Your task to perform on an android device: change your default location settings in chrome Image 0: 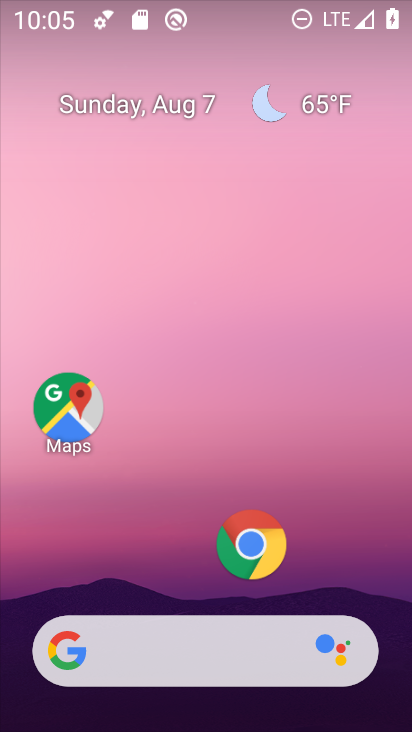
Step 0: drag from (192, 578) to (189, 36)
Your task to perform on an android device: change your default location settings in chrome Image 1: 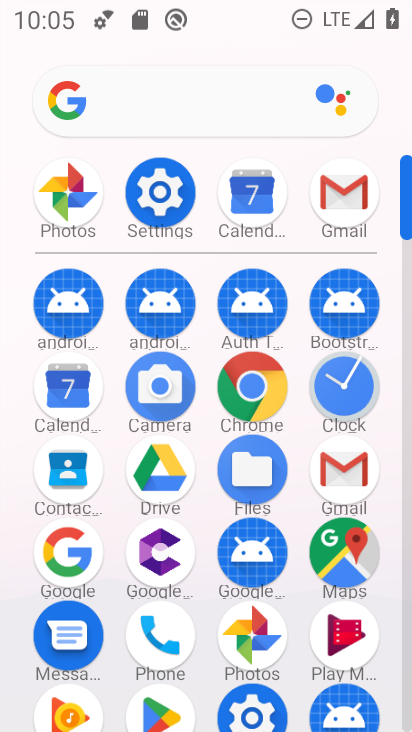
Step 1: click (252, 375)
Your task to perform on an android device: change your default location settings in chrome Image 2: 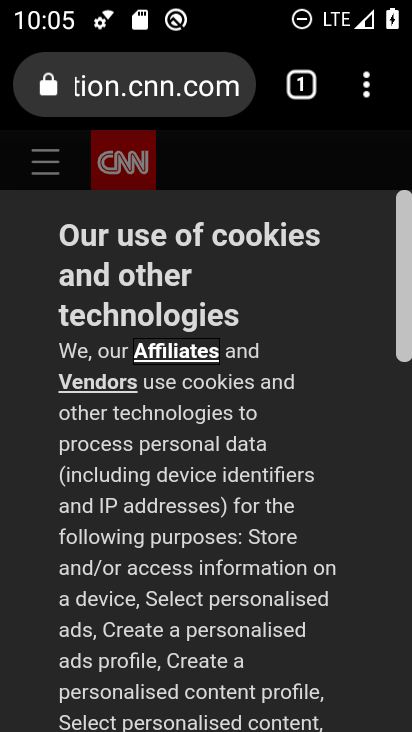
Step 2: drag from (367, 75) to (84, 601)
Your task to perform on an android device: change your default location settings in chrome Image 3: 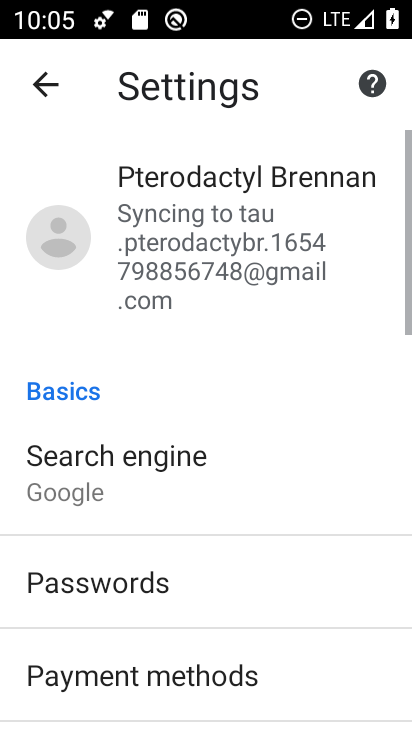
Step 3: drag from (183, 562) to (373, 7)
Your task to perform on an android device: change your default location settings in chrome Image 4: 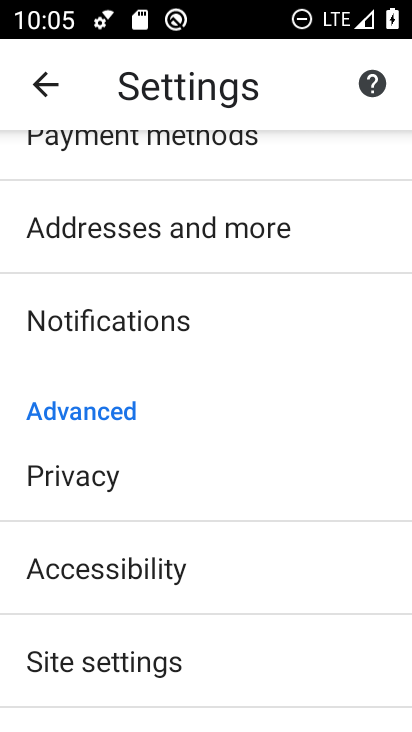
Step 4: drag from (189, 556) to (180, 47)
Your task to perform on an android device: change your default location settings in chrome Image 5: 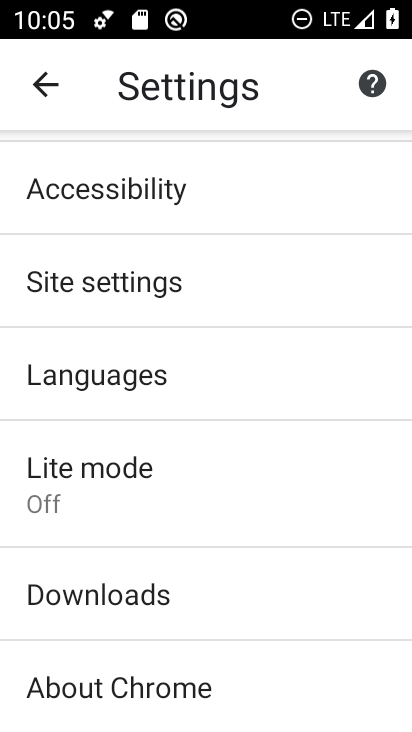
Step 5: click (95, 363)
Your task to perform on an android device: change your default location settings in chrome Image 6: 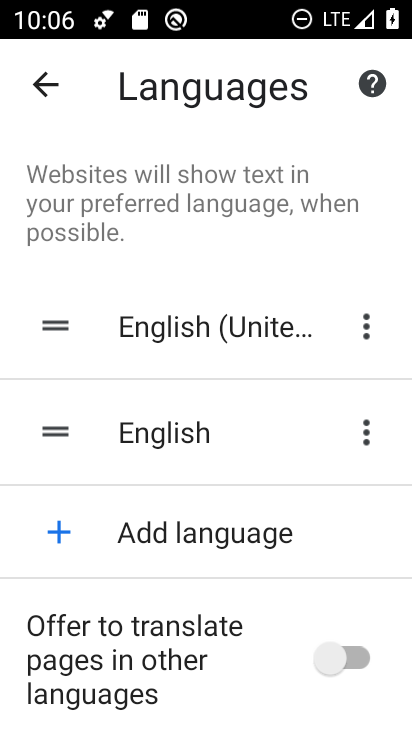
Step 6: click (34, 99)
Your task to perform on an android device: change your default location settings in chrome Image 7: 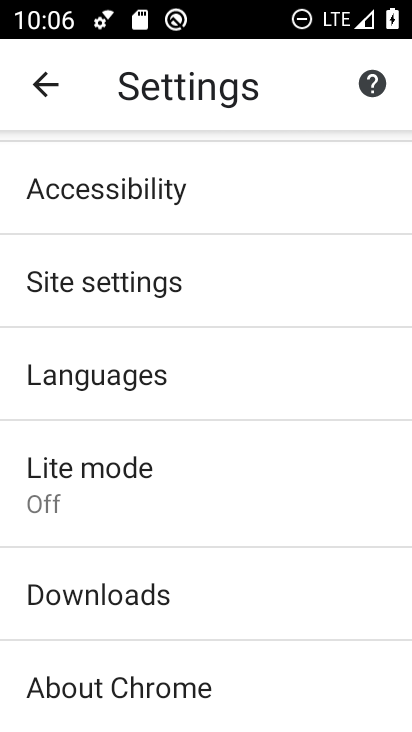
Step 7: click (112, 283)
Your task to perform on an android device: change your default location settings in chrome Image 8: 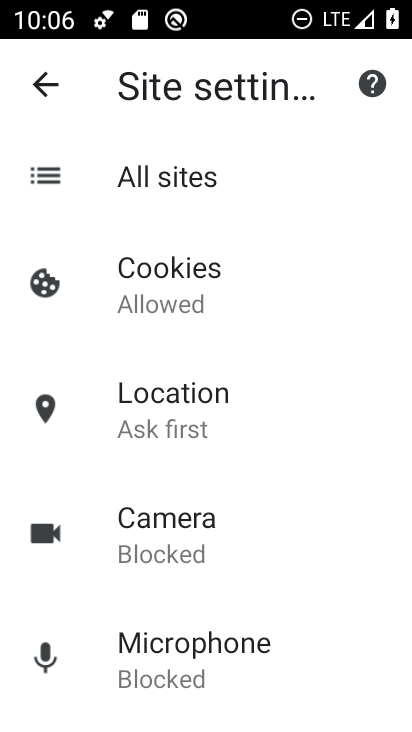
Step 8: click (205, 396)
Your task to perform on an android device: change your default location settings in chrome Image 9: 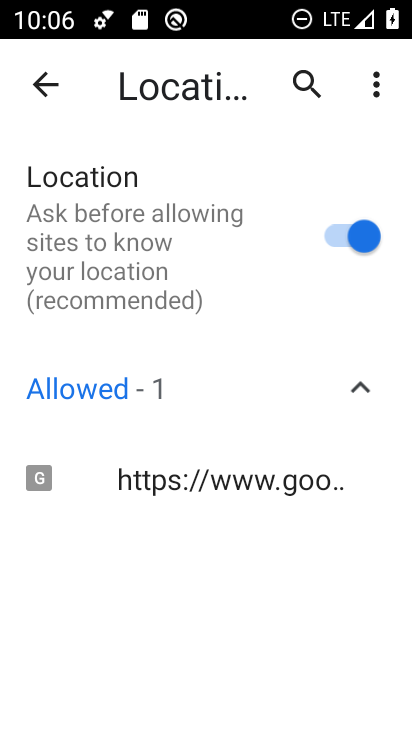
Step 9: click (354, 245)
Your task to perform on an android device: change your default location settings in chrome Image 10: 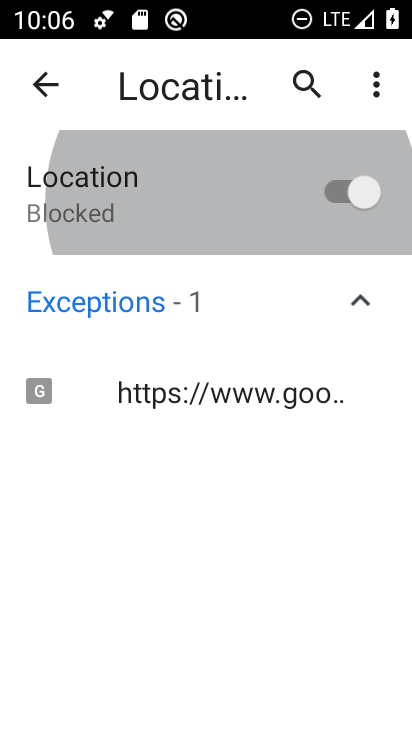
Step 10: task complete